Your task to perform on an android device: Open notification settings Image 0: 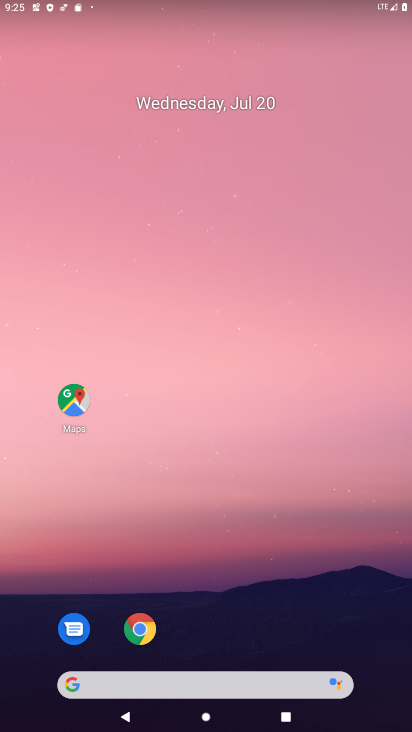
Step 0: drag from (244, 660) to (219, 5)
Your task to perform on an android device: Open notification settings Image 1: 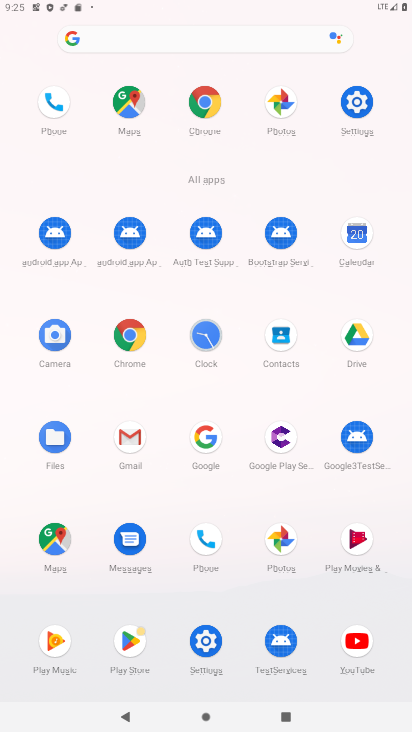
Step 1: click (198, 653)
Your task to perform on an android device: Open notification settings Image 2: 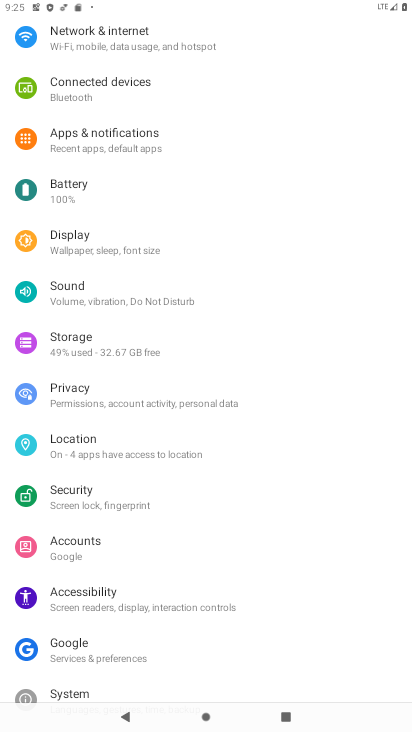
Step 2: click (137, 162)
Your task to perform on an android device: Open notification settings Image 3: 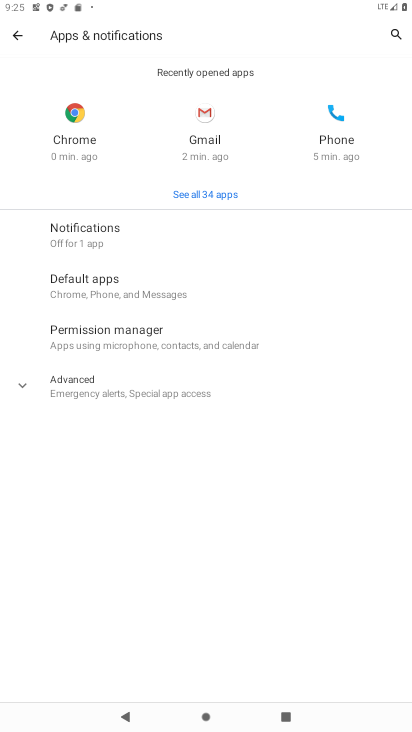
Step 3: click (96, 238)
Your task to perform on an android device: Open notification settings Image 4: 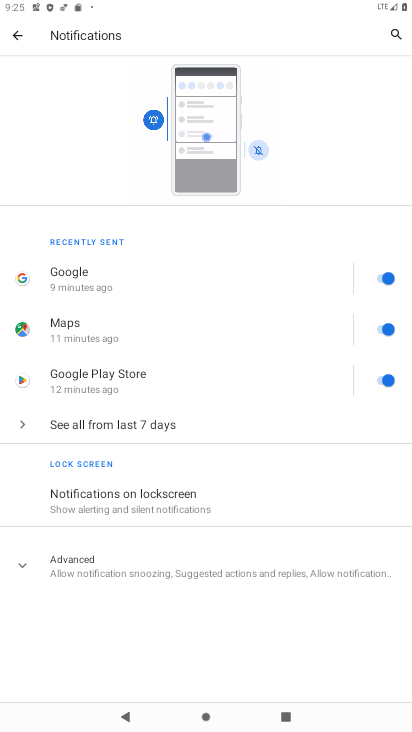
Step 4: task complete